Your task to perform on an android device: Search for Italian restaurants on Maps Image 0: 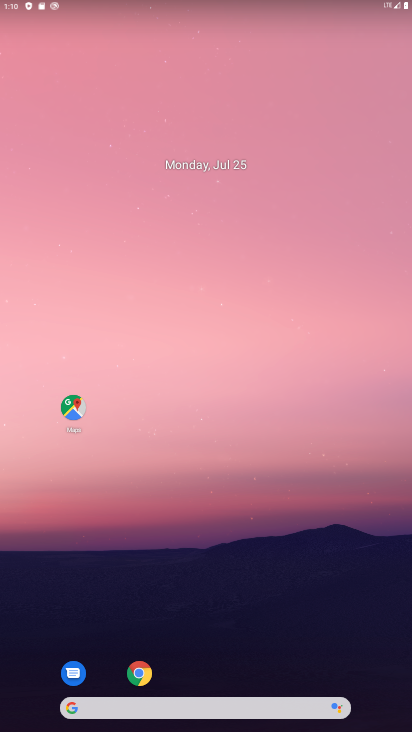
Step 0: click (71, 405)
Your task to perform on an android device: Search for Italian restaurants on Maps Image 1: 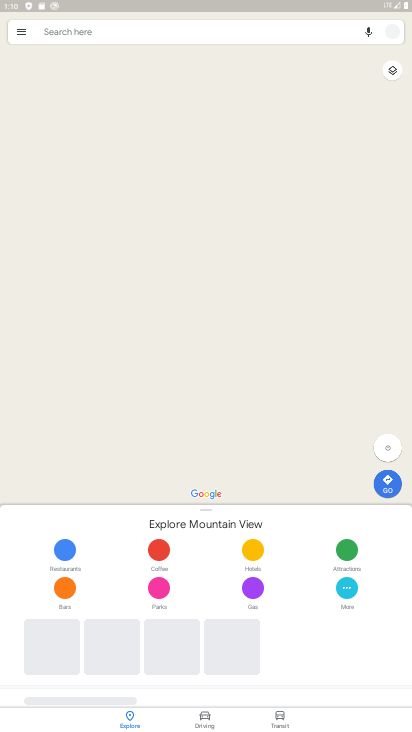
Step 1: click (95, 26)
Your task to perform on an android device: Search for Italian restaurants on Maps Image 2: 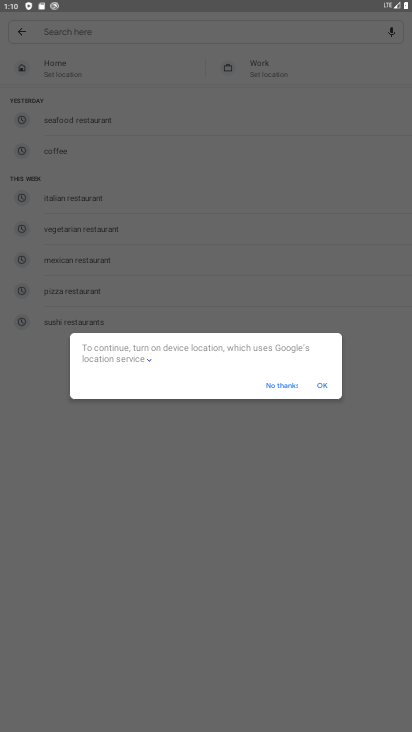
Step 2: click (323, 387)
Your task to perform on an android device: Search for Italian restaurants on Maps Image 3: 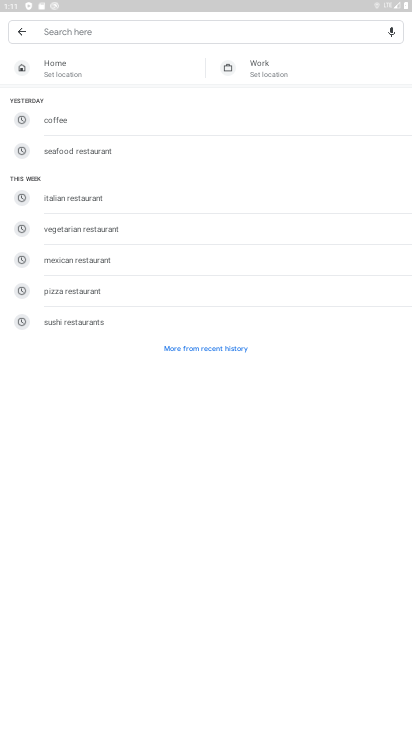
Step 3: press back button
Your task to perform on an android device: Search for Italian restaurants on Maps Image 4: 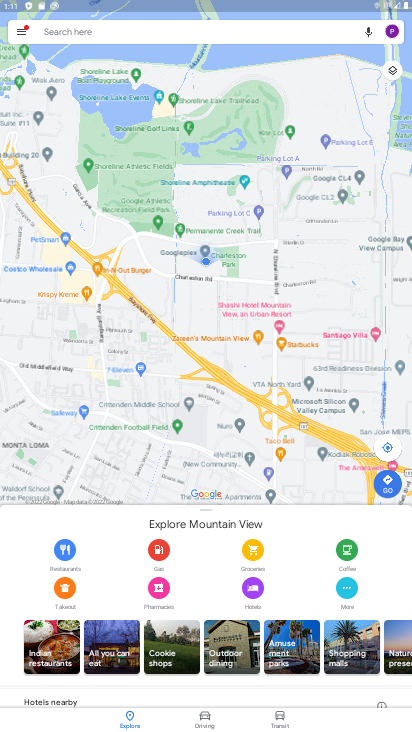
Step 4: click (97, 32)
Your task to perform on an android device: Search for Italian restaurants on Maps Image 5: 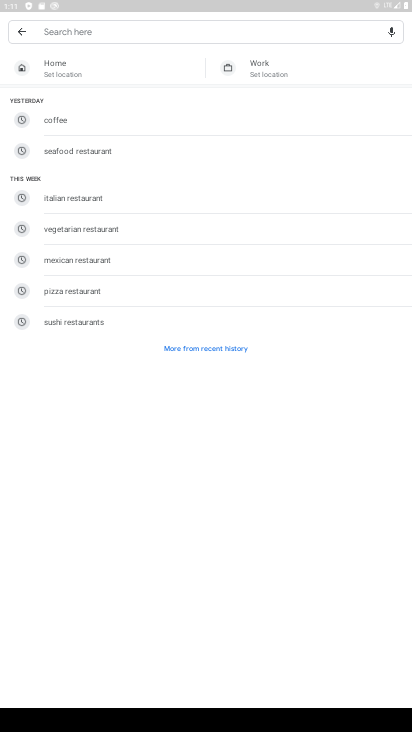
Step 5: type "italian restaurants"
Your task to perform on an android device: Search for Italian restaurants on Maps Image 6: 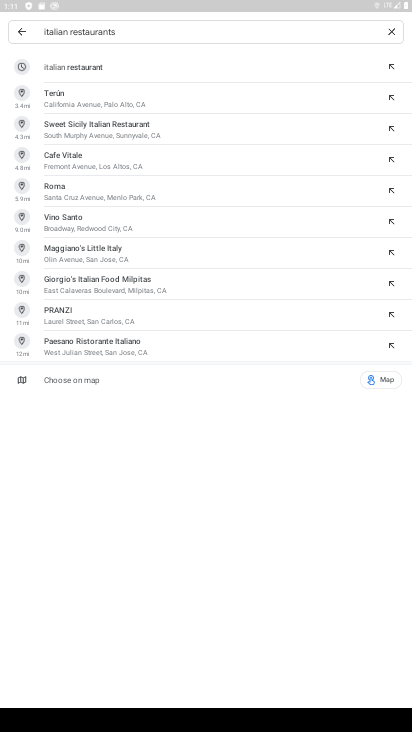
Step 6: click (81, 70)
Your task to perform on an android device: Search for Italian restaurants on Maps Image 7: 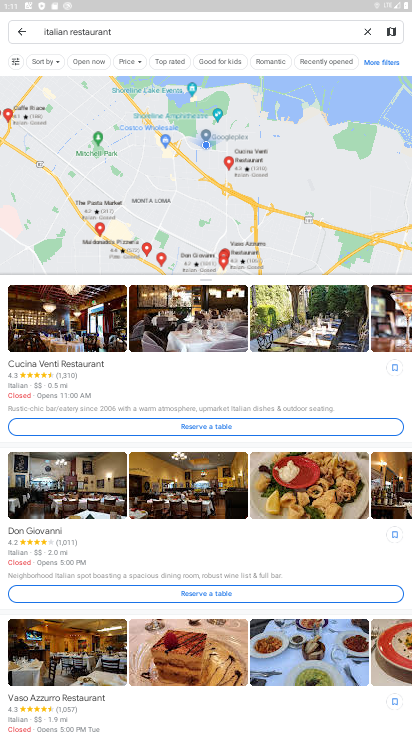
Step 7: click (242, 144)
Your task to perform on an android device: Search for Italian restaurants on Maps Image 8: 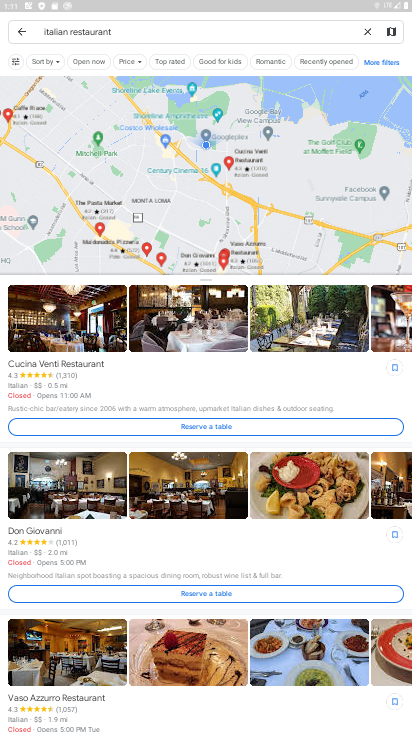
Step 8: task complete